Your task to perform on an android device: turn off notifications settings in the gmail app Image 0: 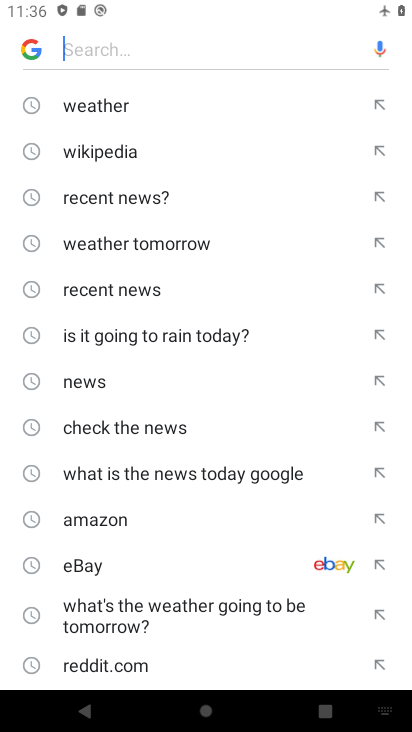
Step 0: press home button
Your task to perform on an android device: turn off notifications settings in the gmail app Image 1: 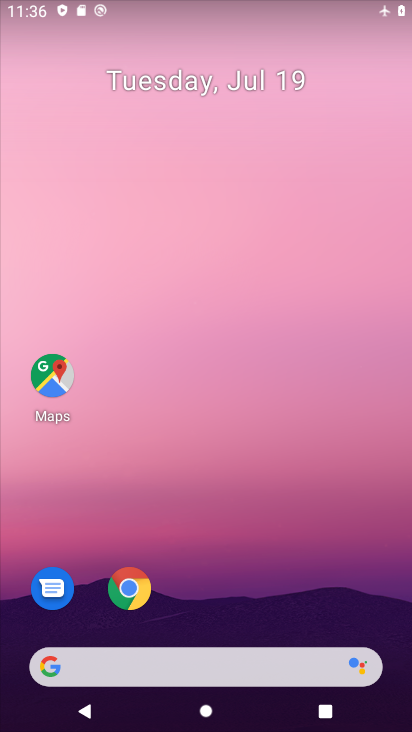
Step 1: drag from (363, 629) to (188, 50)
Your task to perform on an android device: turn off notifications settings in the gmail app Image 2: 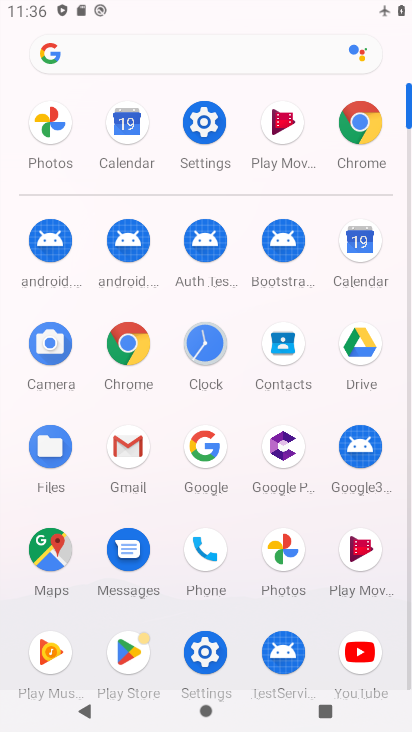
Step 2: click (145, 444)
Your task to perform on an android device: turn off notifications settings in the gmail app Image 3: 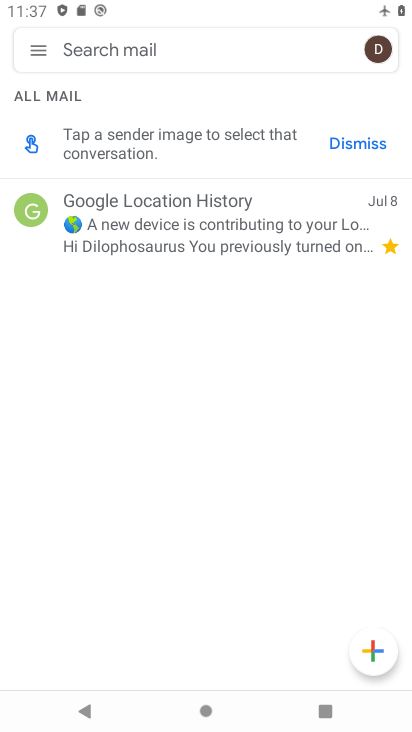
Step 3: click (38, 45)
Your task to perform on an android device: turn off notifications settings in the gmail app Image 4: 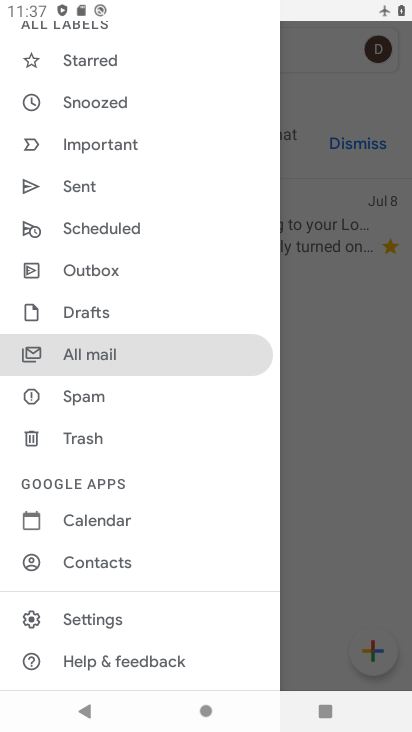
Step 4: click (88, 622)
Your task to perform on an android device: turn off notifications settings in the gmail app Image 5: 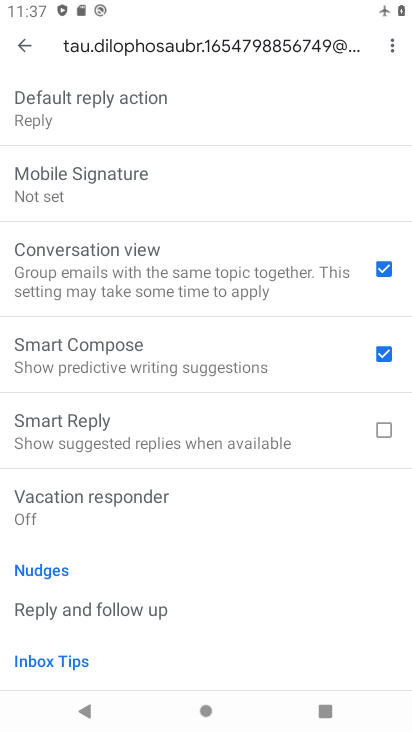
Step 5: drag from (140, 228) to (168, 619)
Your task to perform on an android device: turn off notifications settings in the gmail app Image 6: 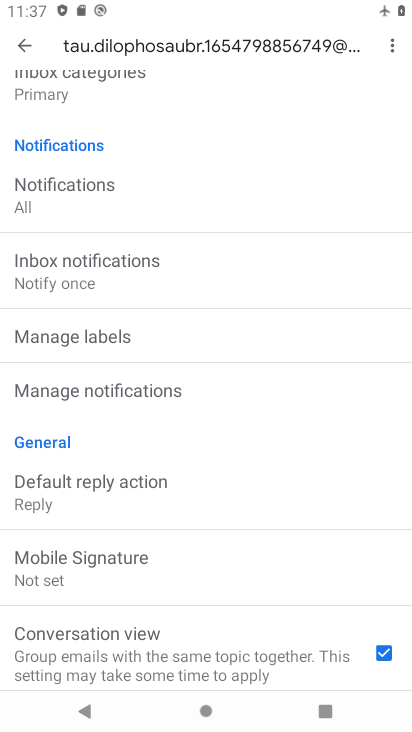
Step 6: drag from (157, 185) to (154, 630)
Your task to perform on an android device: turn off notifications settings in the gmail app Image 7: 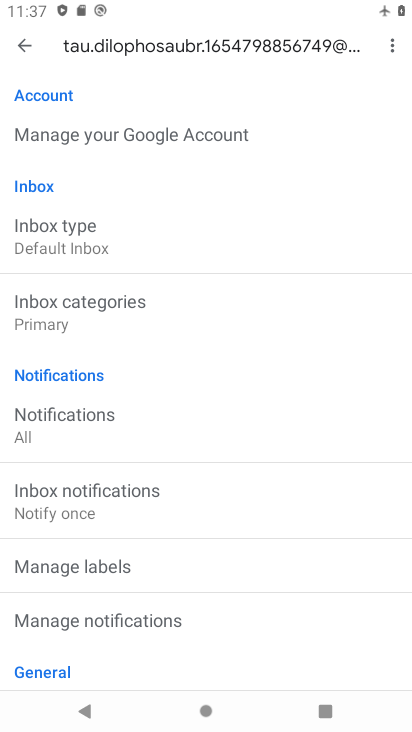
Step 7: click (78, 432)
Your task to perform on an android device: turn off notifications settings in the gmail app Image 8: 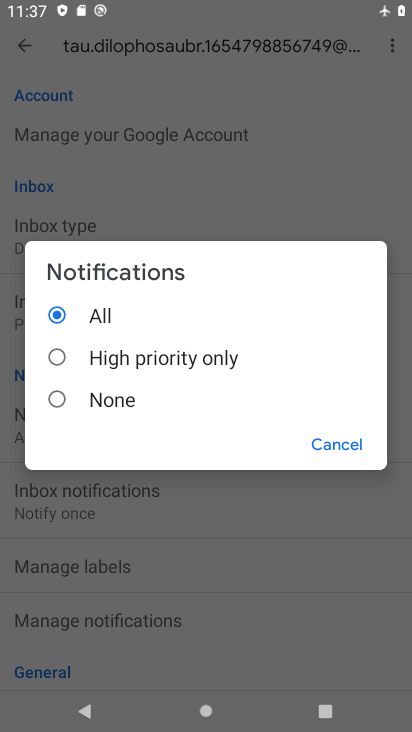
Step 8: click (78, 400)
Your task to perform on an android device: turn off notifications settings in the gmail app Image 9: 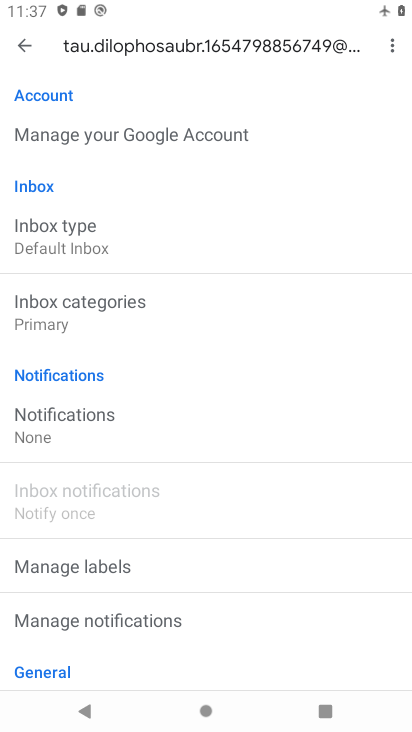
Step 9: task complete